Your task to perform on an android device: Open network settings Image 0: 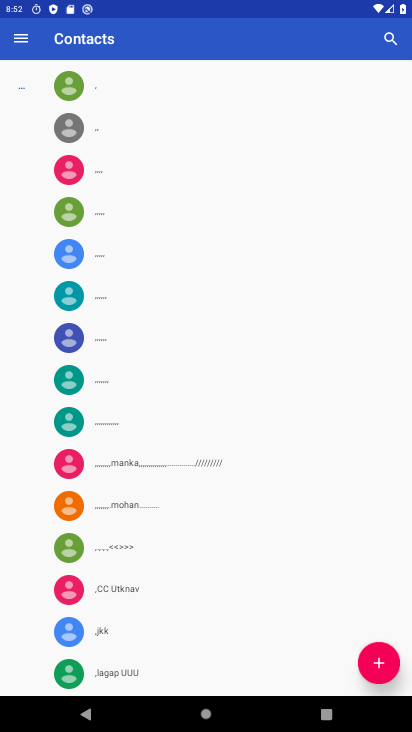
Step 0: press home button
Your task to perform on an android device: Open network settings Image 1: 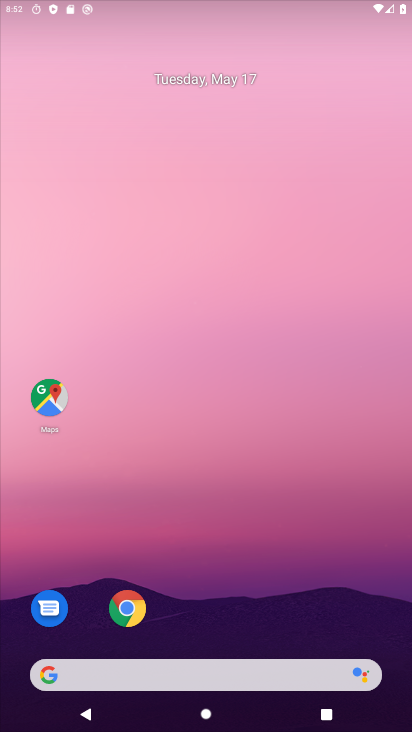
Step 1: drag from (305, 615) to (255, 163)
Your task to perform on an android device: Open network settings Image 2: 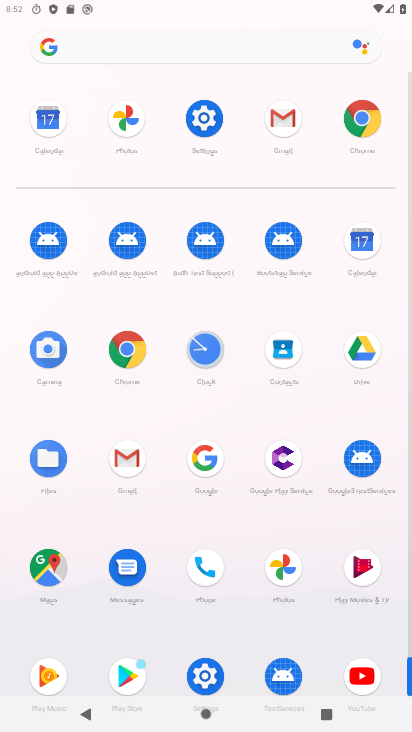
Step 2: click (216, 663)
Your task to perform on an android device: Open network settings Image 3: 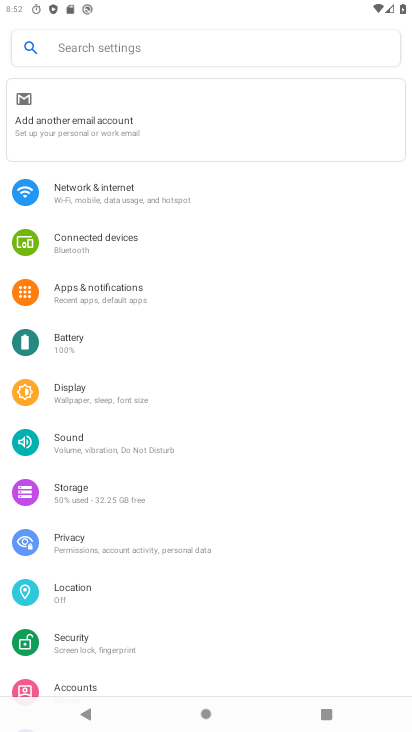
Step 3: click (121, 185)
Your task to perform on an android device: Open network settings Image 4: 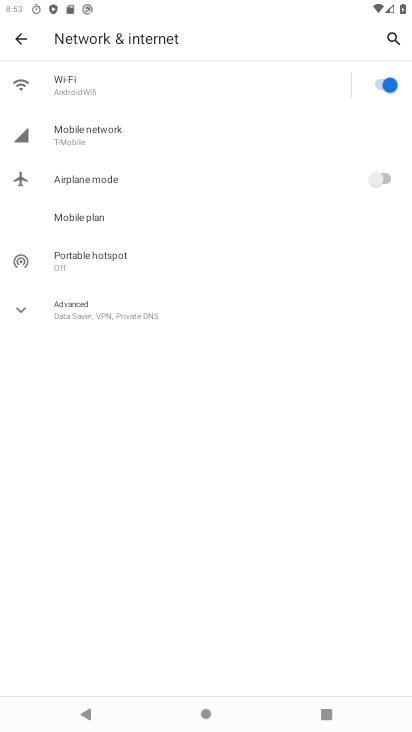
Step 4: task complete